Your task to perform on an android device: What's the news in Barbados? Image 0: 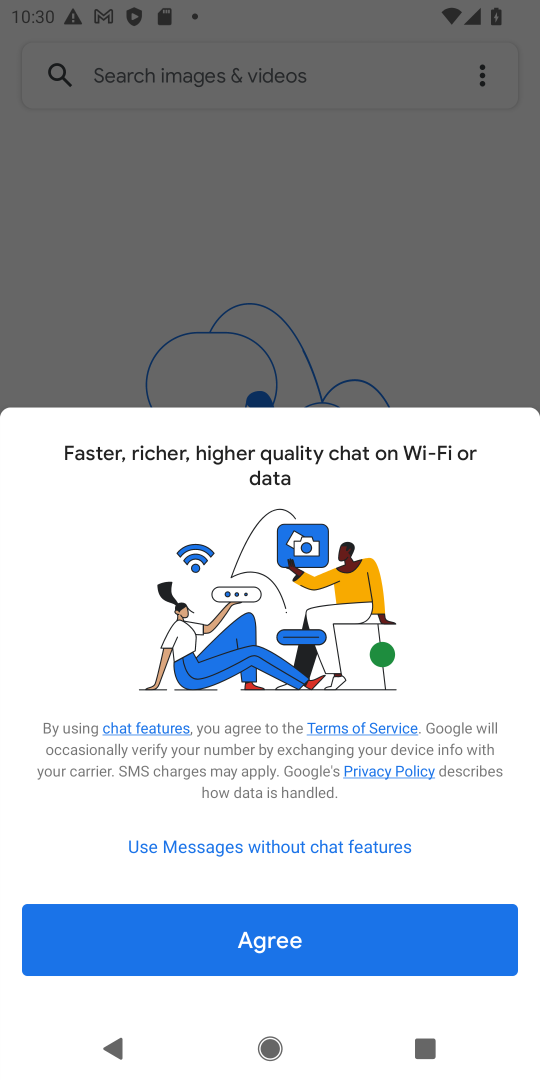
Step 0: press home button
Your task to perform on an android device: What's the news in Barbados? Image 1: 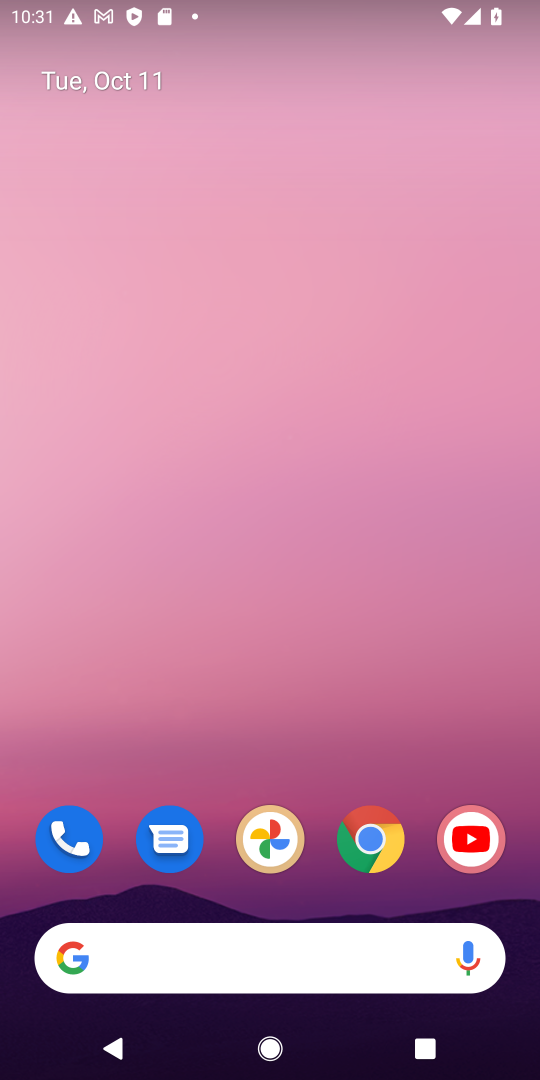
Step 1: drag from (330, 949) to (437, 174)
Your task to perform on an android device: What's the news in Barbados? Image 2: 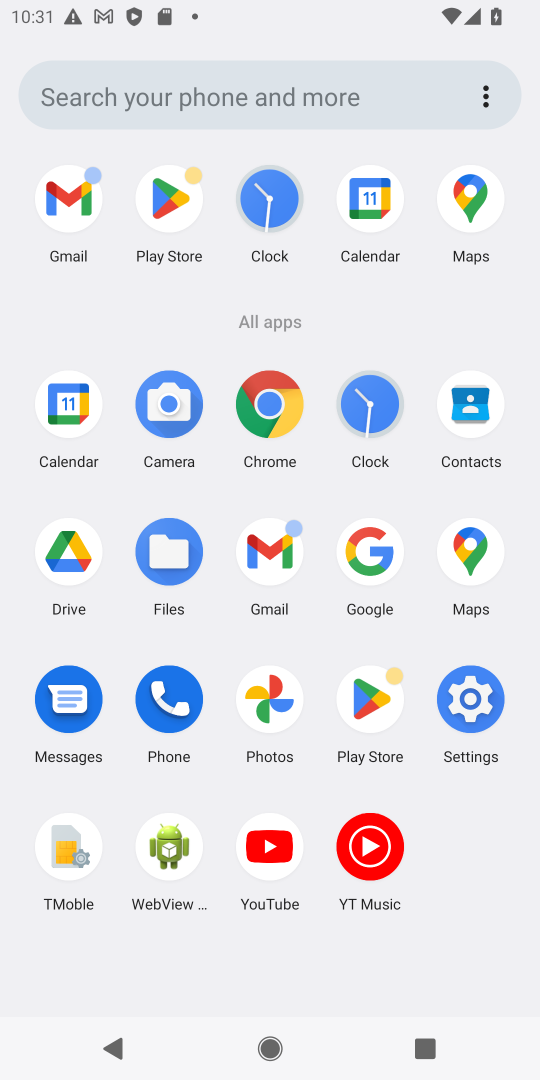
Step 2: click (377, 530)
Your task to perform on an android device: What's the news in Barbados? Image 3: 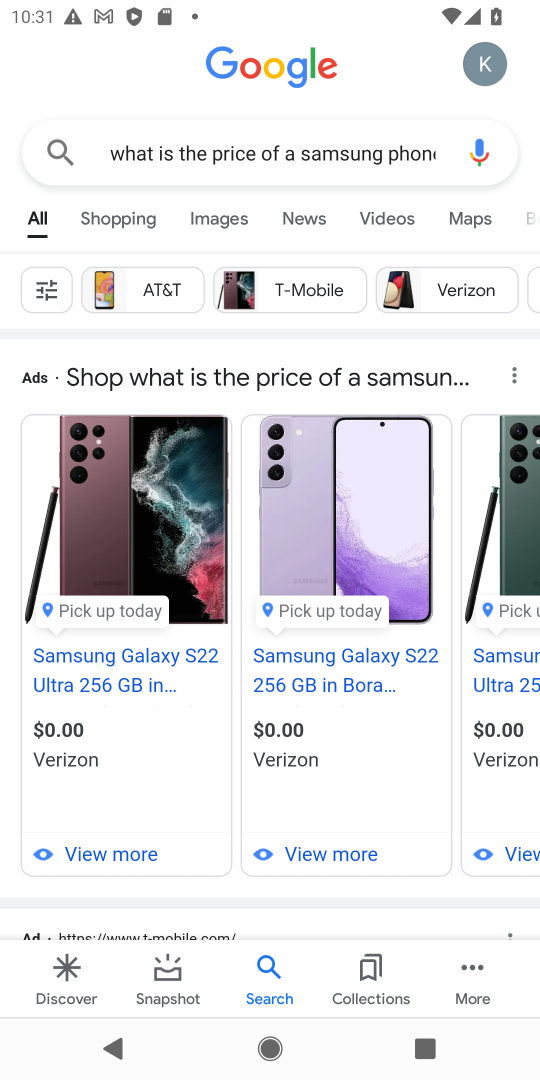
Step 3: click (386, 151)
Your task to perform on an android device: What's the news in Barbados? Image 4: 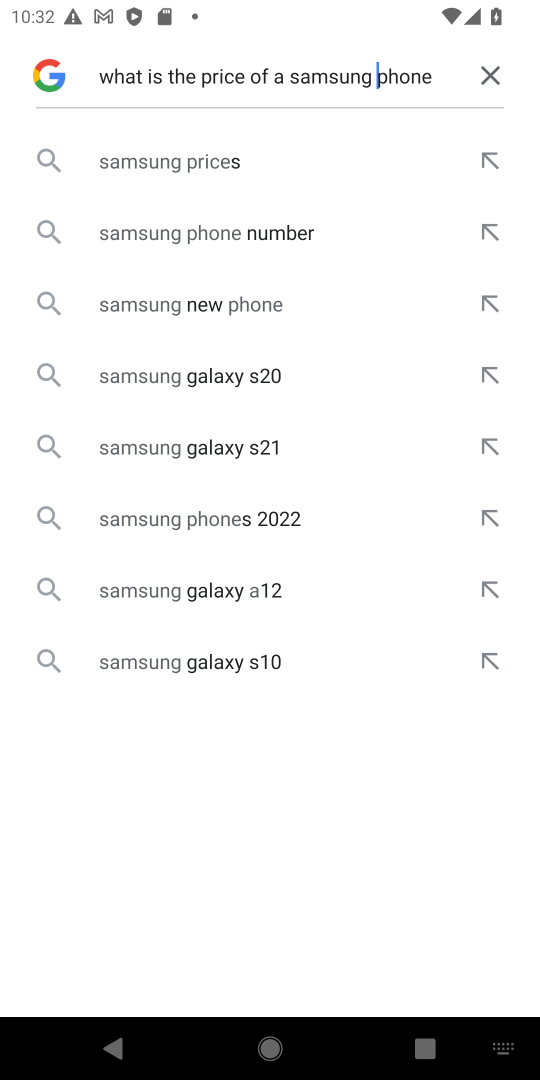
Step 4: click (494, 65)
Your task to perform on an android device: What's the news in Barbados? Image 5: 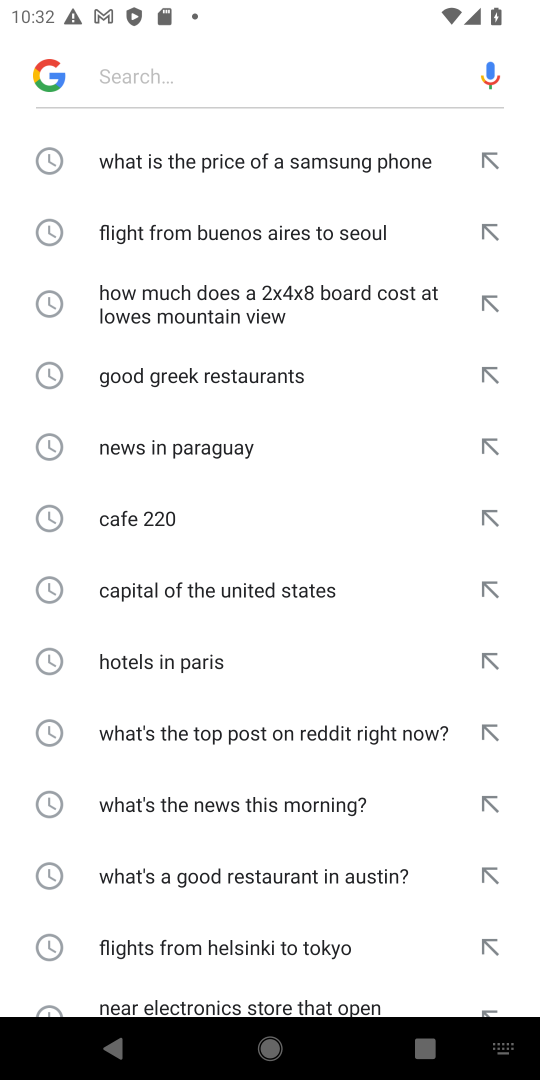
Step 5: type "news in Barbados"
Your task to perform on an android device: What's the news in Barbados? Image 6: 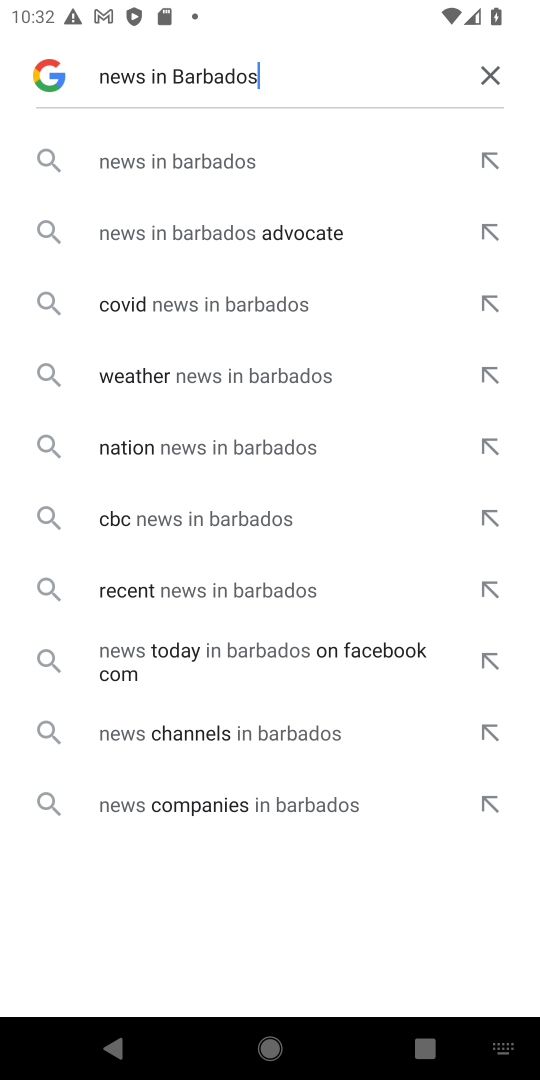
Step 6: click (263, 175)
Your task to perform on an android device: What's the news in Barbados? Image 7: 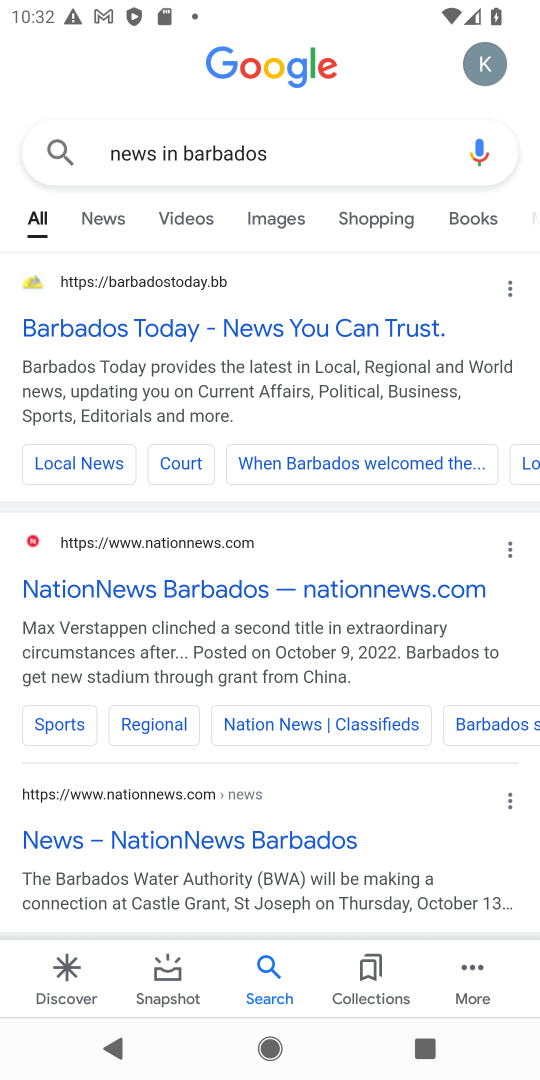
Step 7: click (113, 218)
Your task to perform on an android device: What's the news in Barbados? Image 8: 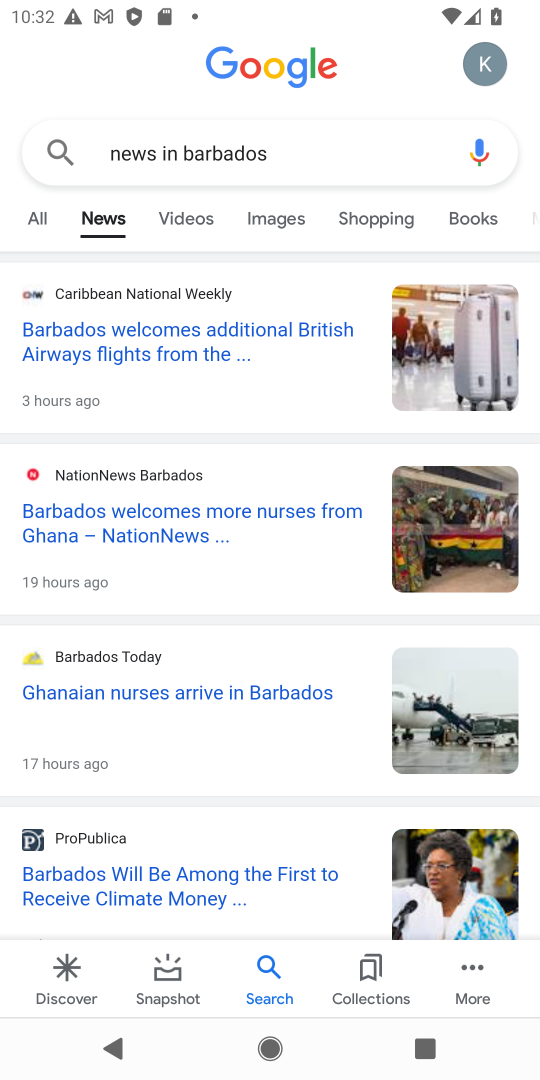
Step 8: task complete